Your task to perform on an android device: Search for vegetarian restaurants on Maps Image 0: 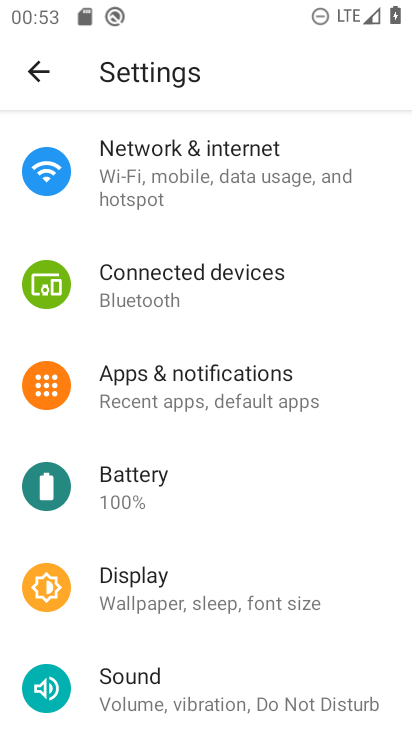
Step 0: press home button
Your task to perform on an android device: Search for vegetarian restaurants on Maps Image 1: 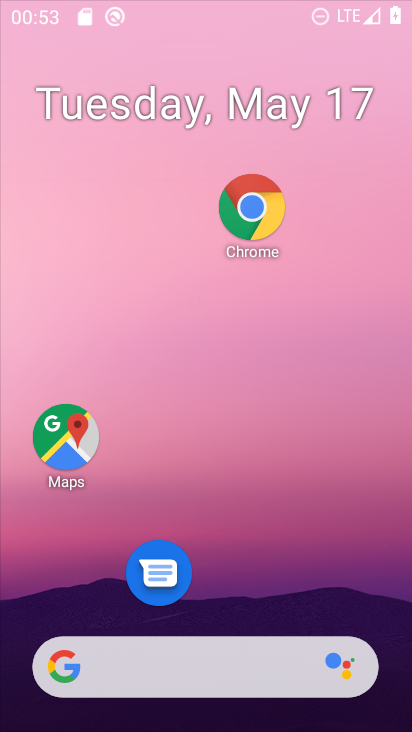
Step 1: drag from (306, 716) to (299, 46)
Your task to perform on an android device: Search for vegetarian restaurants on Maps Image 2: 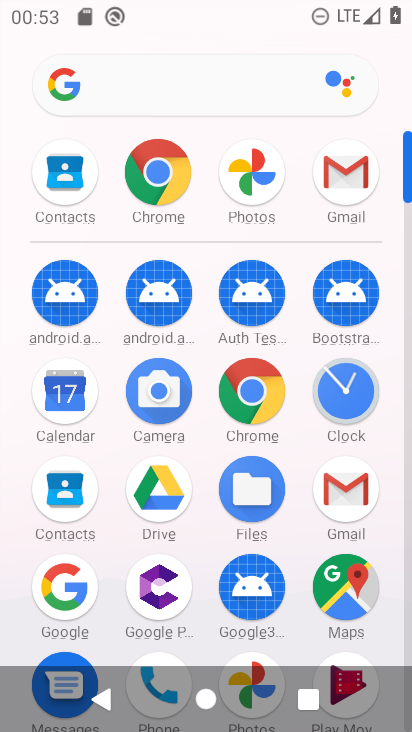
Step 2: click (345, 580)
Your task to perform on an android device: Search for vegetarian restaurants on Maps Image 3: 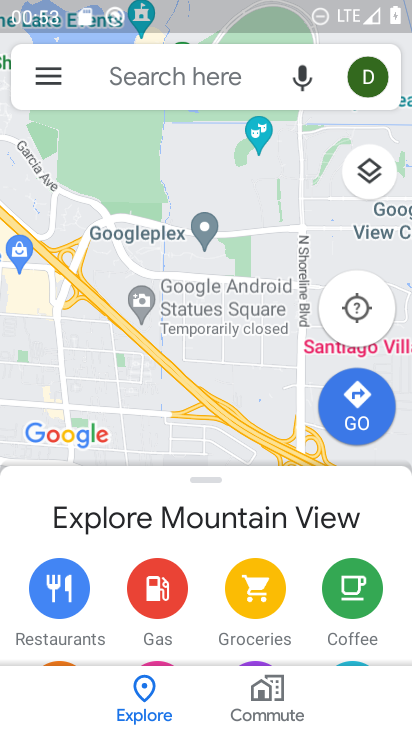
Step 3: click (209, 83)
Your task to perform on an android device: Search for vegetarian restaurants on Maps Image 4: 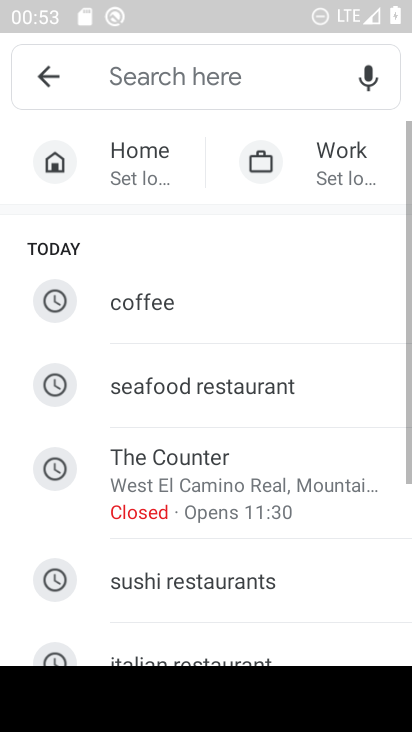
Step 4: drag from (221, 598) to (237, 139)
Your task to perform on an android device: Search for vegetarian restaurants on Maps Image 5: 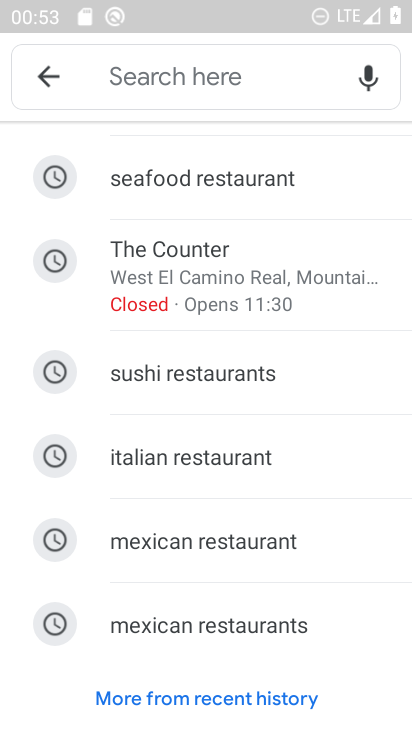
Step 5: drag from (323, 172) to (308, 466)
Your task to perform on an android device: Search for vegetarian restaurants on Maps Image 6: 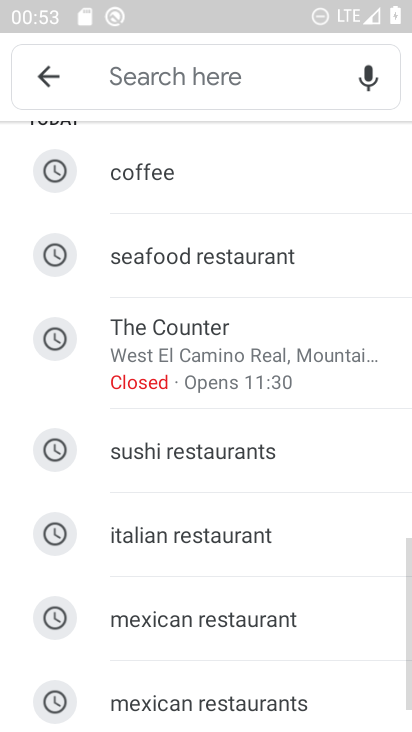
Step 6: click (166, 71)
Your task to perform on an android device: Search for vegetarian restaurants on Maps Image 7: 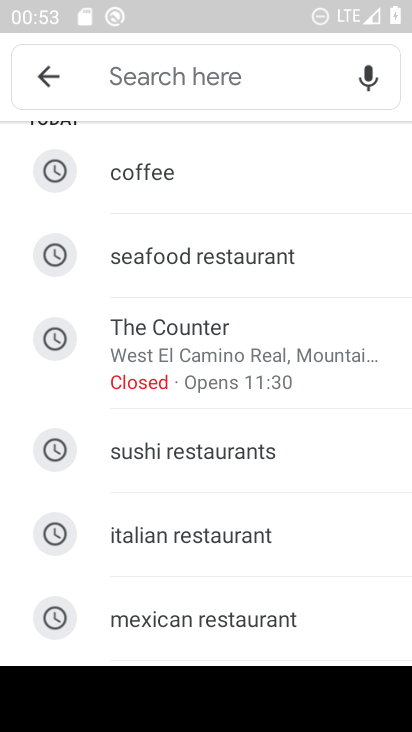
Step 7: type "vegetarian res"
Your task to perform on an android device: Search for vegetarian restaurants on Maps Image 8: 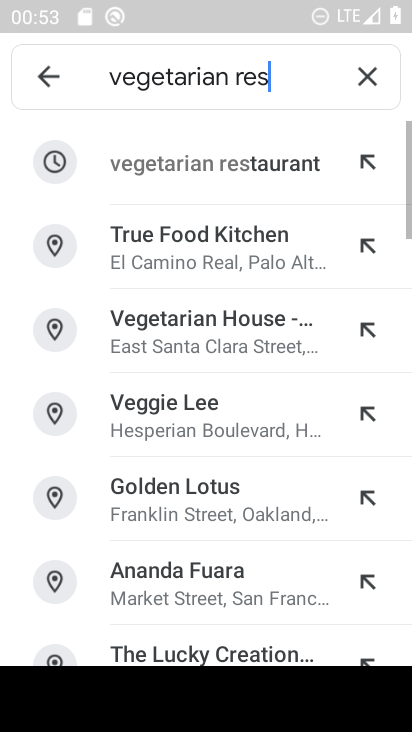
Step 8: click (239, 187)
Your task to perform on an android device: Search for vegetarian restaurants on Maps Image 9: 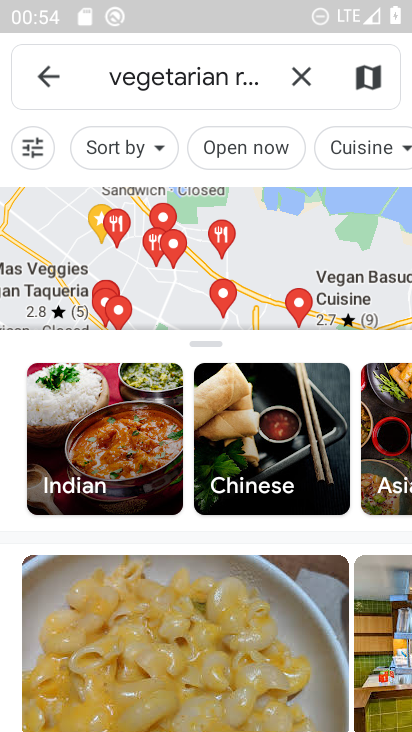
Step 9: task complete